Your task to perform on an android device: find photos in the google photos app Image 0: 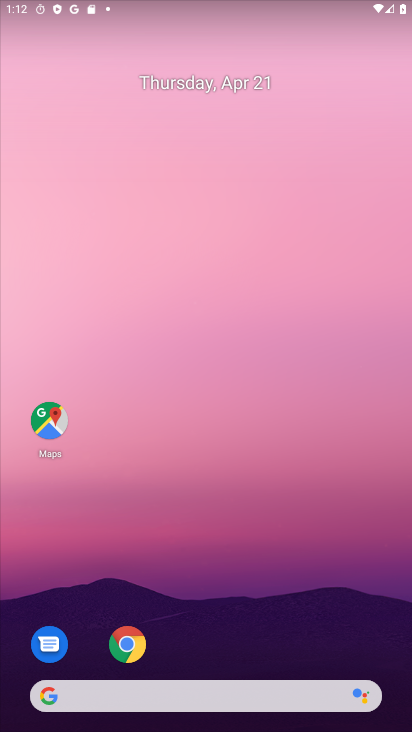
Step 0: drag from (285, 602) to (227, 115)
Your task to perform on an android device: find photos in the google photos app Image 1: 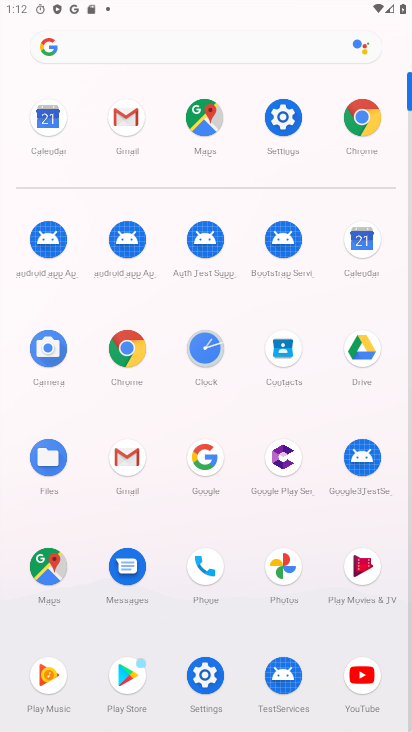
Step 1: click (296, 574)
Your task to perform on an android device: find photos in the google photos app Image 2: 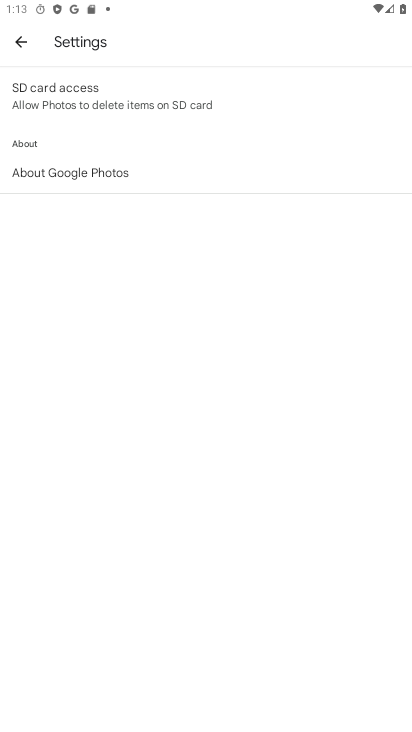
Step 2: click (18, 34)
Your task to perform on an android device: find photos in the google photos app Image 3: 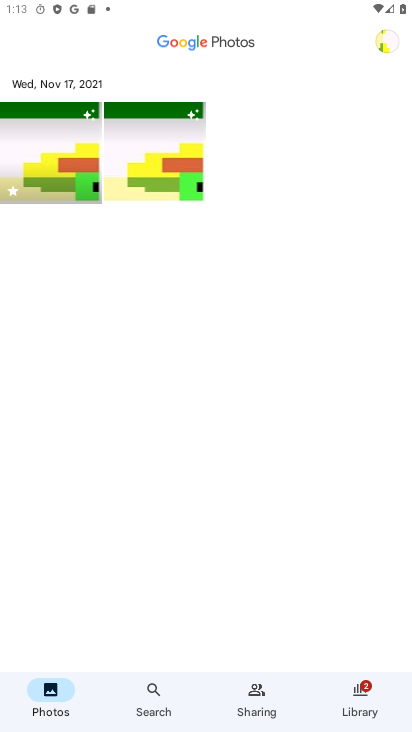
Step 3: task complete